Your task to perform on an android device: Open notification settings Image 0: 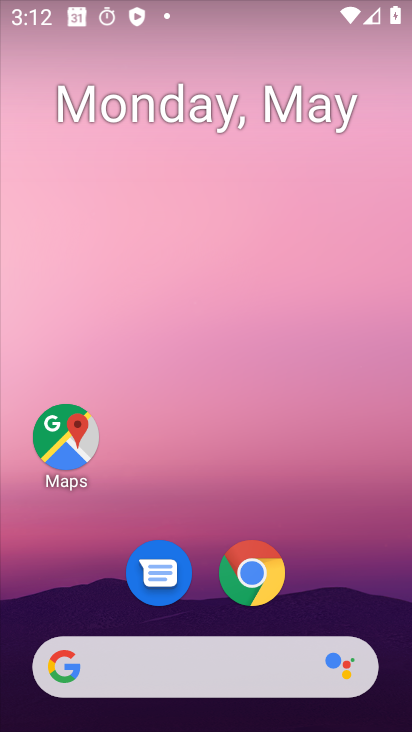
Step 0: drag from (254, 693) to (161, 146)
Your task to perform on an android device: Open notification settings Image 1: 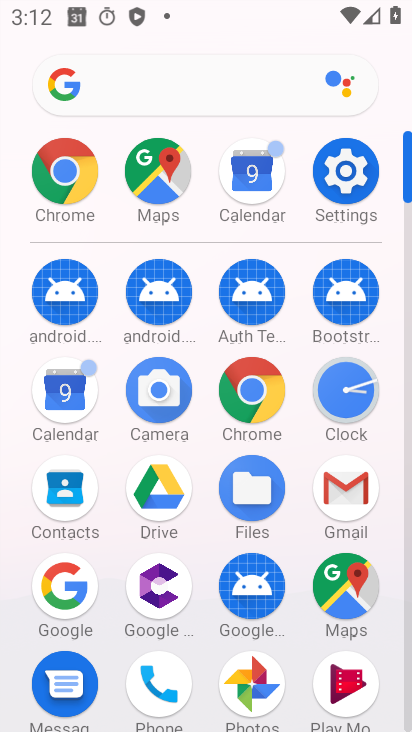
Step 1: click (350, 189)
Your task to perform on an android device: Open notification settings Image 2: 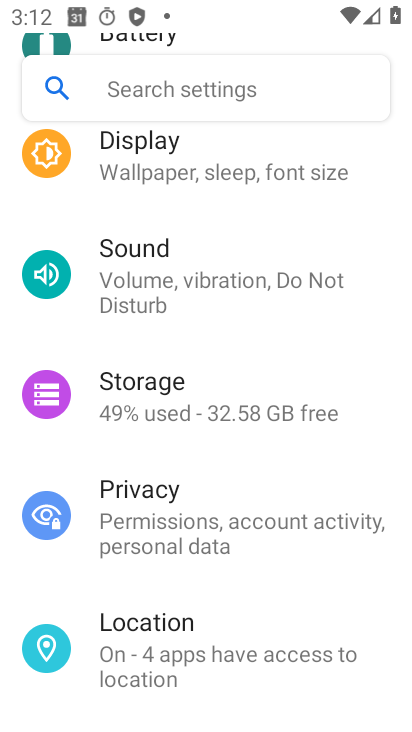
Step 2: drag from (138, 284) to (197, 565)
Your task to perform on an android device: Open notification settings Image 3: 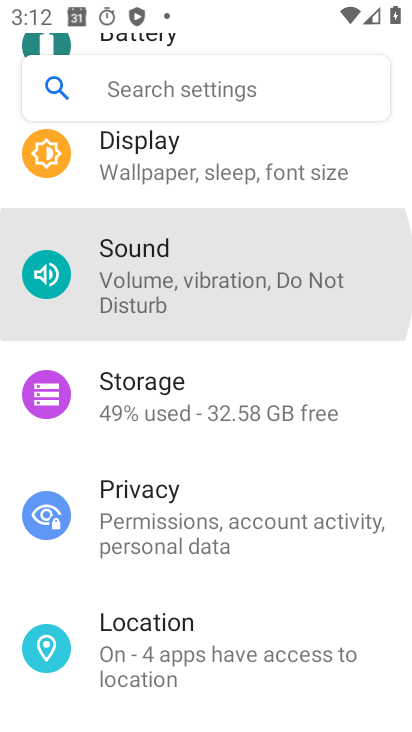
Step 3: drag from (199, 288) to (247, 594)
Your task to perform on an android device: Open notification settings Image 4: 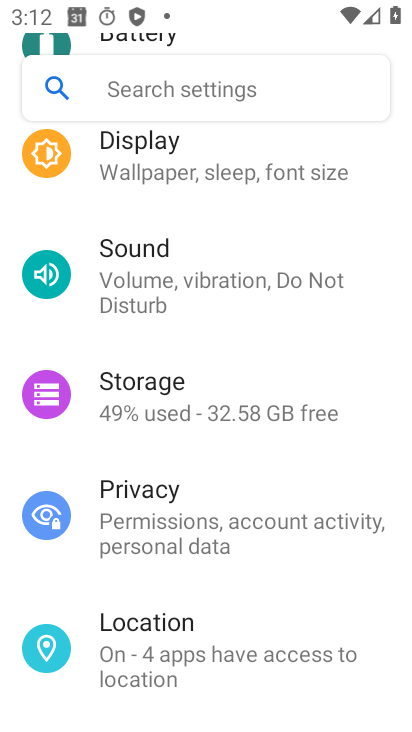
Step 4: drag from (227, 344) to (300, 600)
Your task to perform on an android device: Open notification settings Image 5: 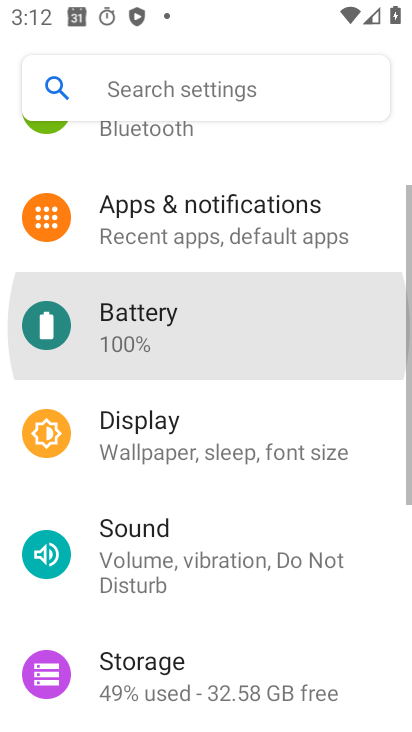
Step 5: drag from (200, 283) to (247, 565)
Your task to perform on an android device: Open notification settings Image 6: 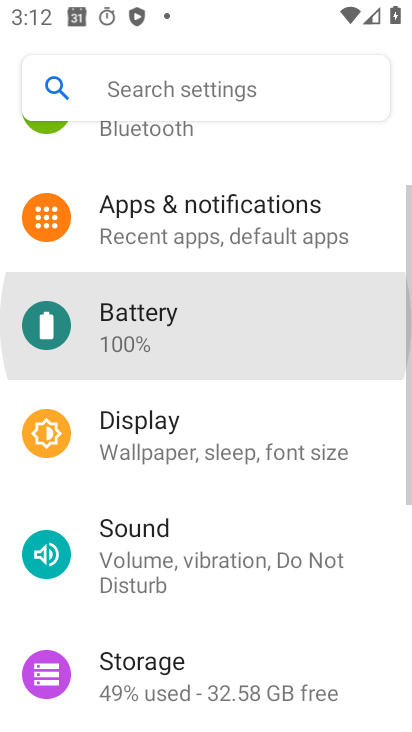
Step 6: drag from (181, 321) to (184, 716)
Your task to perform on an android device: Open notification settings Image 7: 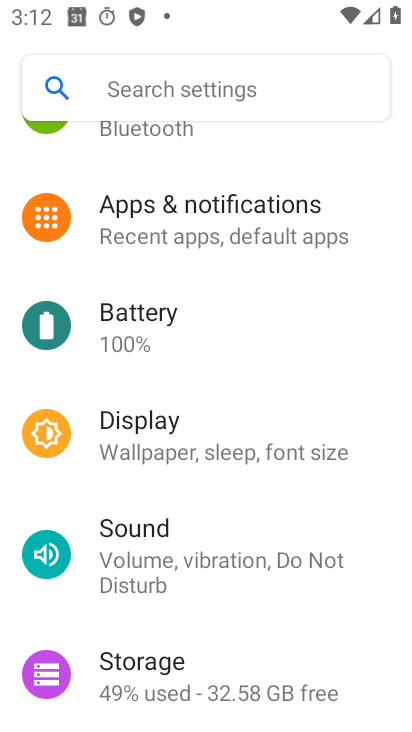
Step 7: click (248, 226)
Your task to perform on an android device: Open notification settings Image 8: 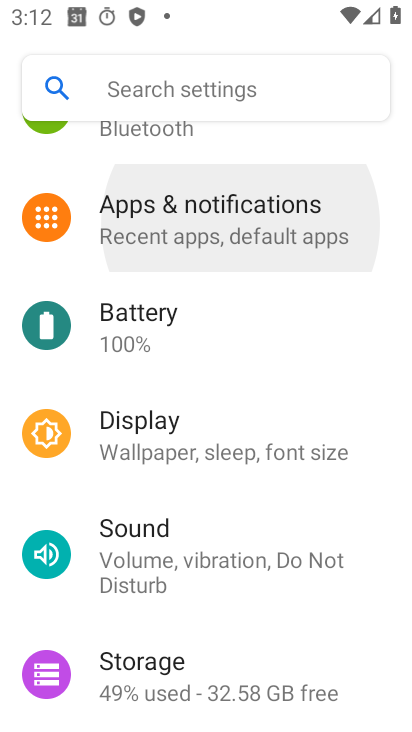
Step 8: click (248, 226)
Your task to perform on an android device: Open notification settings Image 9: 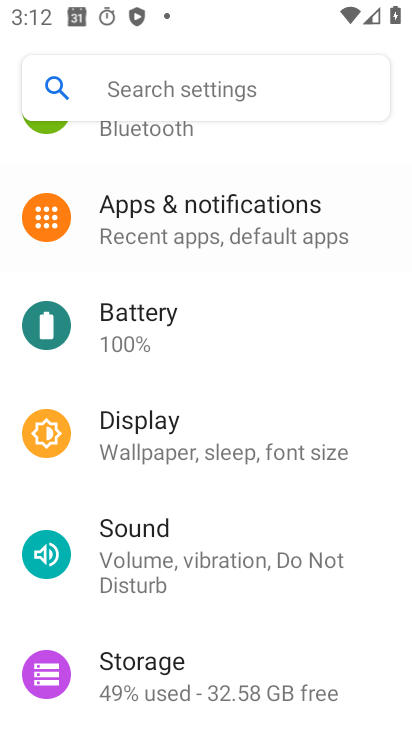
Step 9: click (248, 226)
Your task to perform on an android device: Open notification settings Image 10: 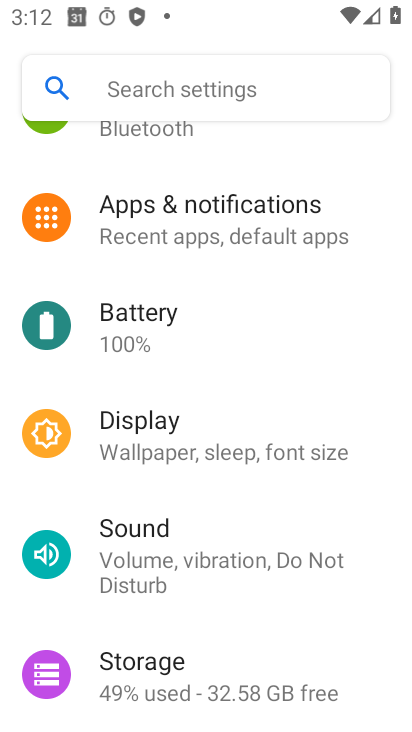
Step 10: click (248, 226)
Your task to perform on an android device: Open notification settings Image 11: 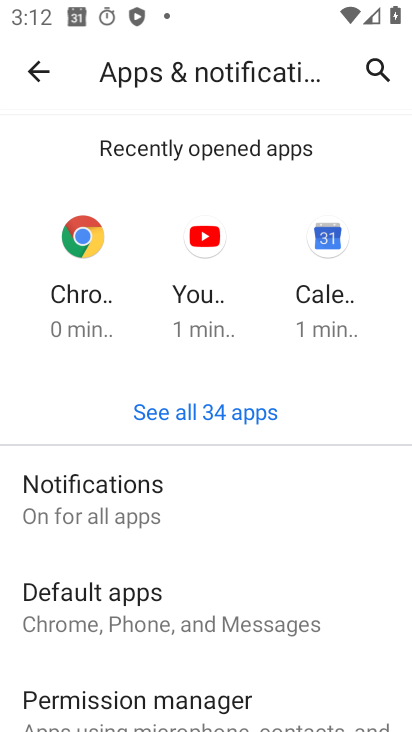
Step 11: click (100, 503)
Your task to perform on an android device: Open notification settings Image 12: 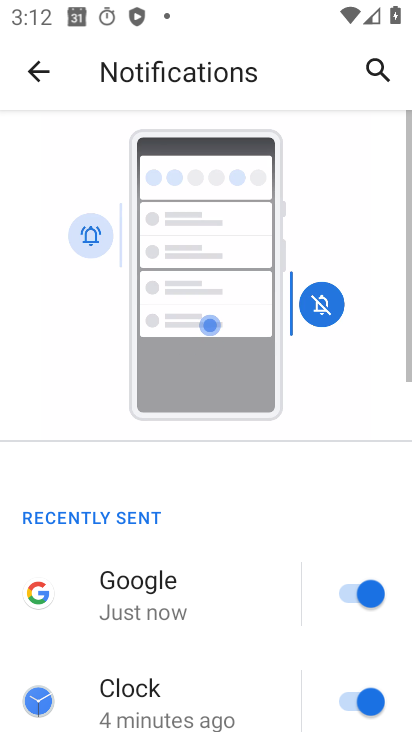
Step 12: drag from (183, 591) to (197, 36)
Your task to perform on an android device: Open notification settings Image 13: 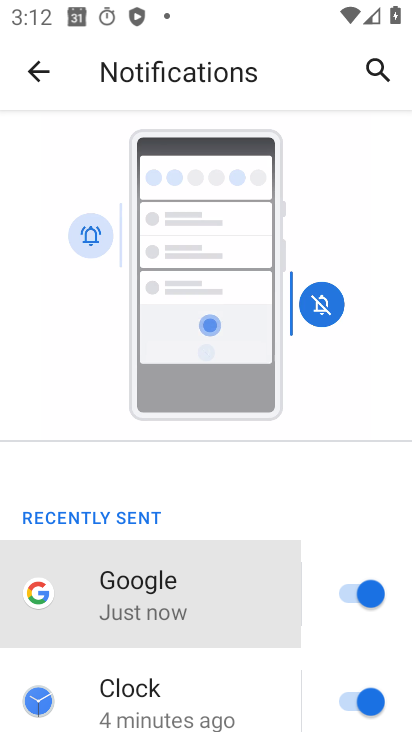
Step 13: drag from (248, 447) to (270, 5)
Your task to perform on an android device: Open notification settings Image 14: 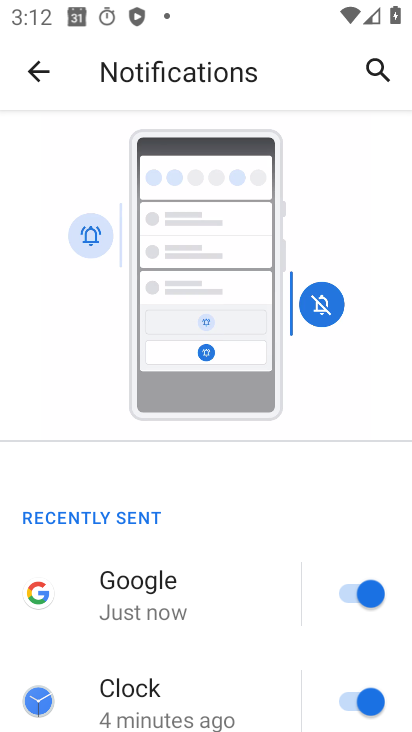
Step 14: drag from (135, 572) to (264, 23)
Your task to perform on an android device: Open notification settings Image 15: 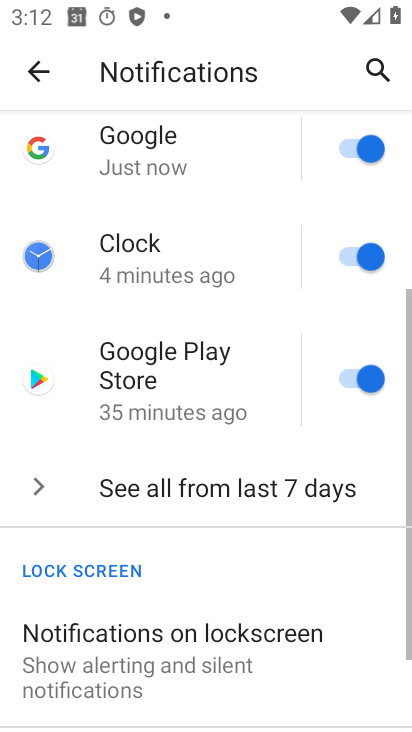
Step 15: drag from (258, 611) to (215, 147)
Your task to perform on an android device: Open notification settings Image 16: 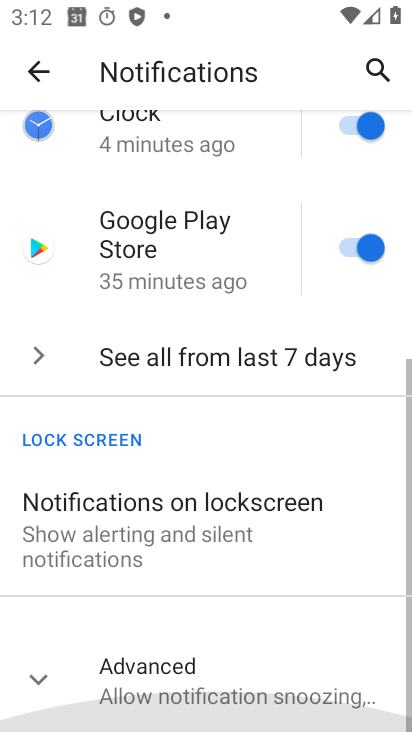
Step 16: drag from (227, 608) to (148, 123)
Your task to perform on an android device: Open notification settings Image 17: 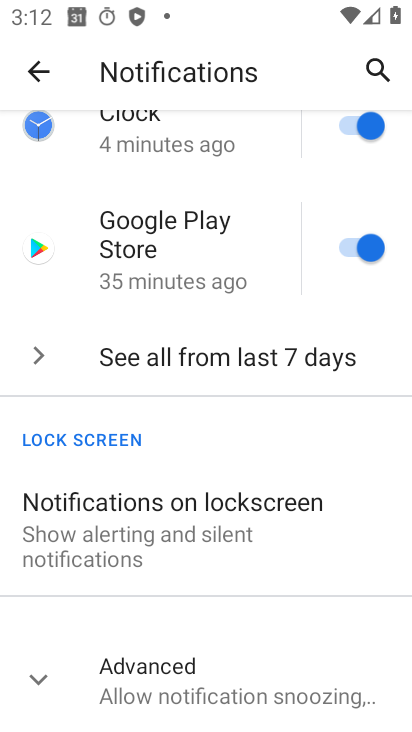
Step 17: click (163, 689)
Your task to perform on an android device: Open notification settings Image 18: 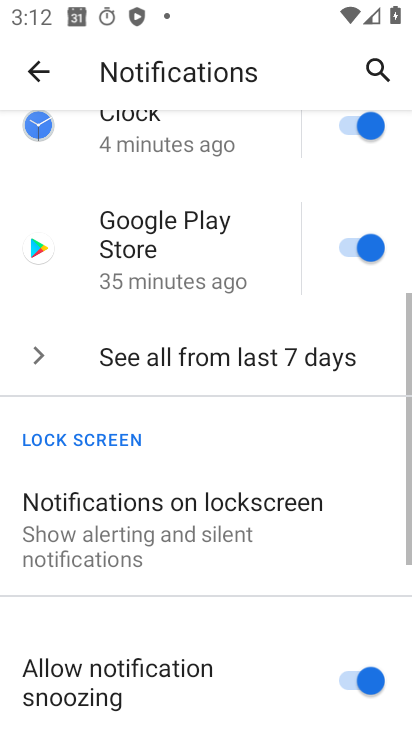
Step 18: task complete